Your task to perform on an android device: Go to Yahoo.com Image 0: 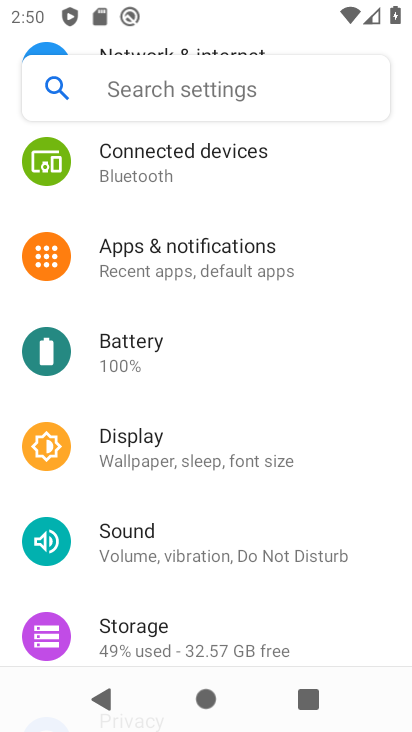
Step 0: press home button
Your task to perform on an android device: Go to Yahoo.com Image 1: 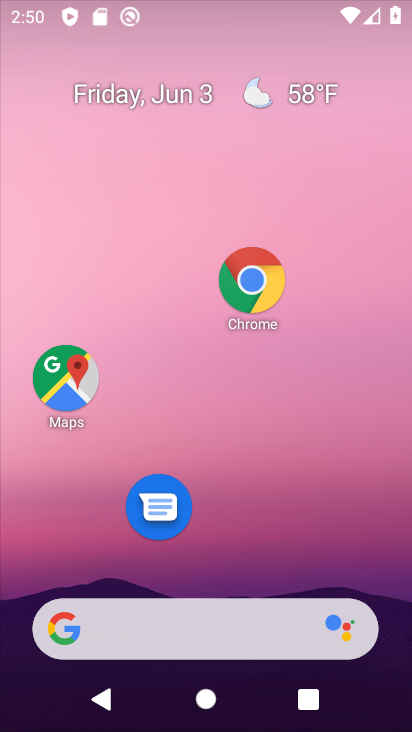
Step 1: drag from (226, 482) to (236, 79)
Your task to perform on an android device: Go to Yahoo.com Image 2: 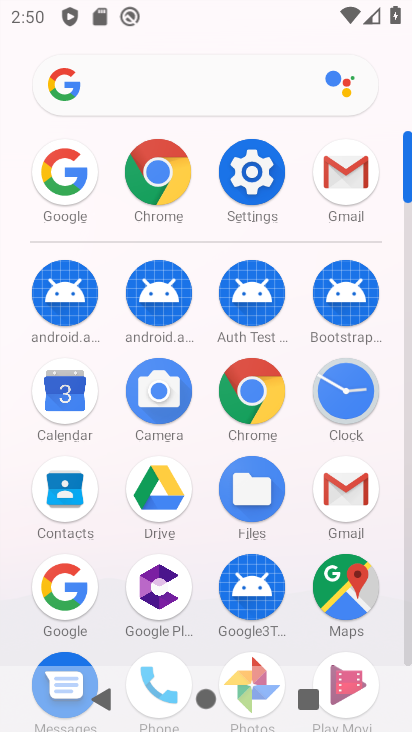
Step 2: click (248, 392)
Your task to perform on an android device: Go to Yahoo.com Image 3: 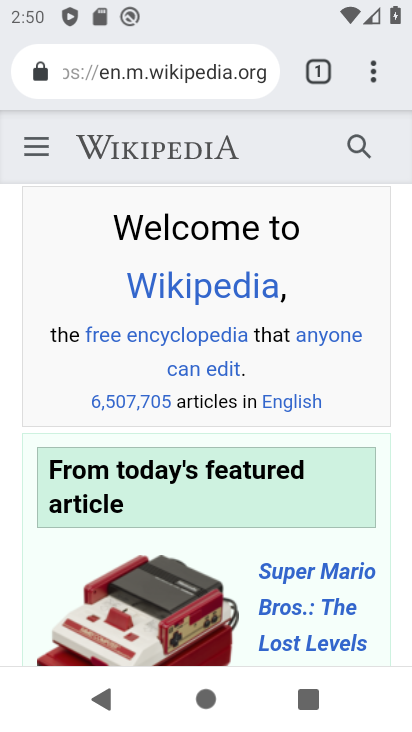
Step 3: press back button
Your task to perform on an android device: Go to Yahoo.com Image 4: 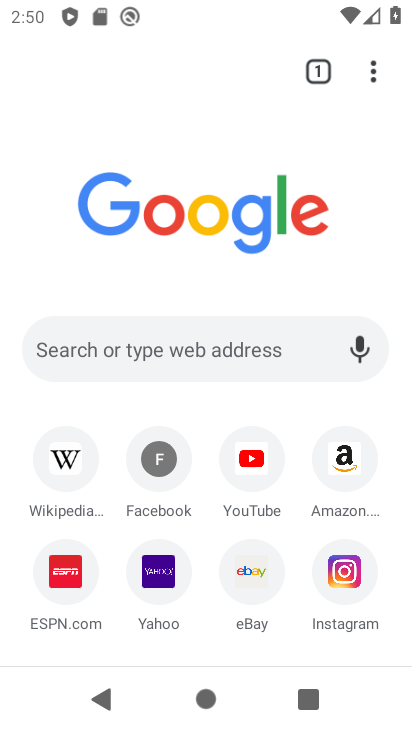
Step 4: click (152, 578)
Your task to perform on an android device: Go to Yahoo.com Image 5: 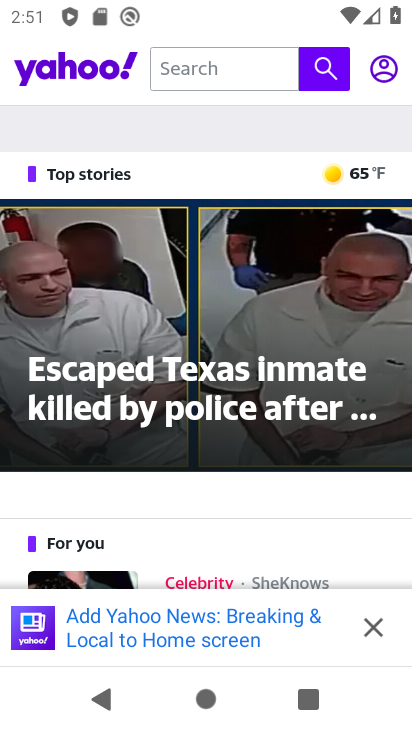
Step 5: task complete